Your task to perform on an android device: Check the news Image 0: 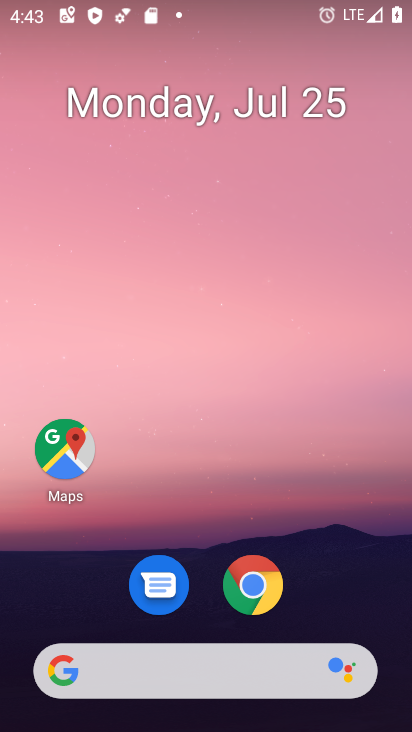
Step 0: drag from (331, 549) to (306, 79)
Your task to perform on an android device: Check the news Image 1: 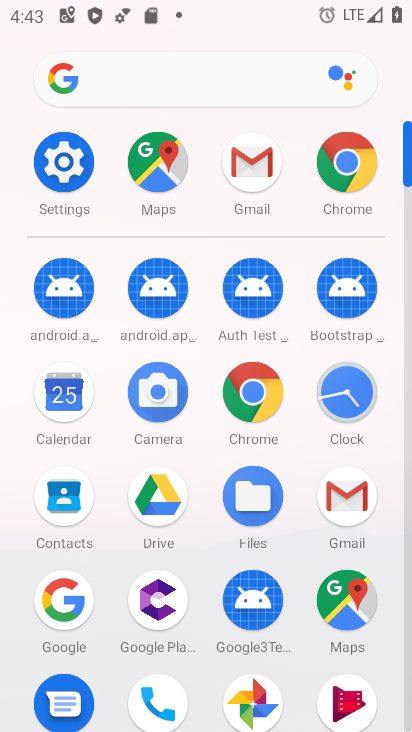
Step 1: press back button
Your task to perform on an android device: Check the news Image 2: 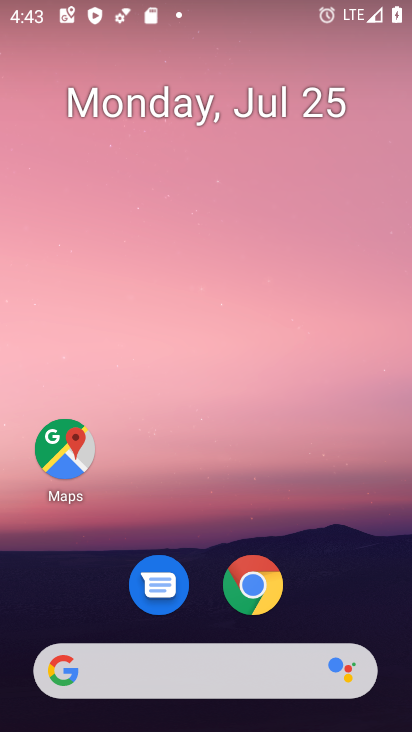
Step 2: click (257, 667)
Your task to perform on an android device: Check the news Image 3: 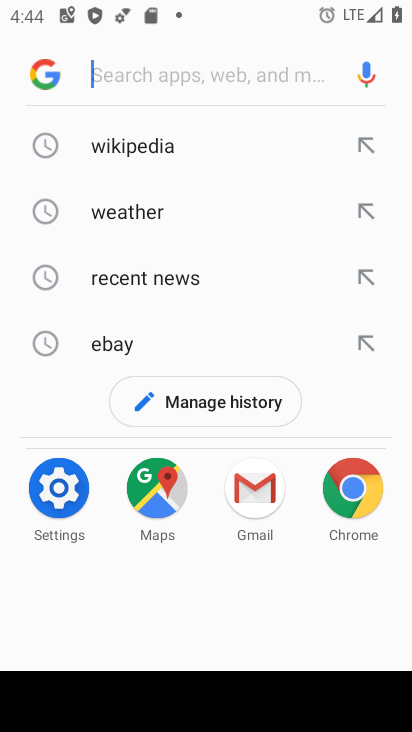
Step 3: click (145, 271)
Your task to perform on an android device: Check the news Image 4: 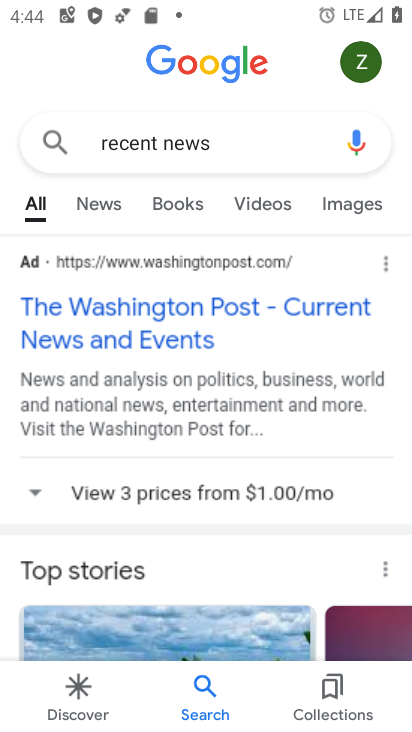
Step 4: drag from (220, 565) to (234, 193)
Your task to perform on an android device: Check the news Image 5: 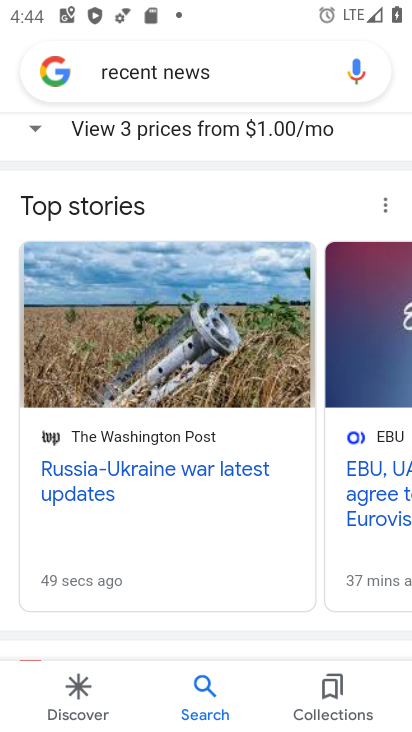
Step 5: drag from (234, 364) to (4, 376)
Your task to perform on an android device: Check the news Image 6: 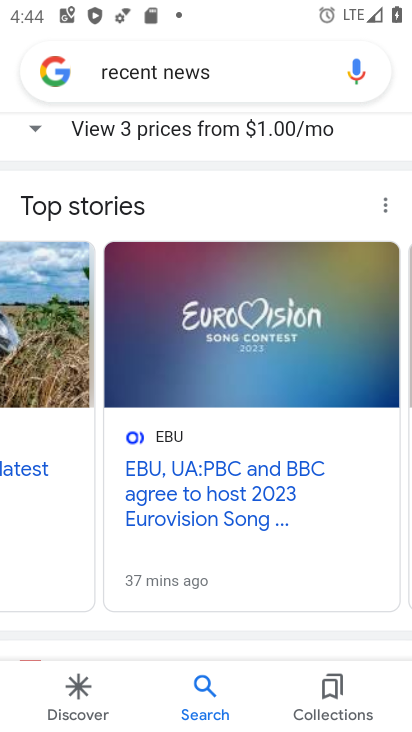
Step 6: drag from (338, 343) to (300, 335)
Your task to perform on an android device: Check the news Image 7: 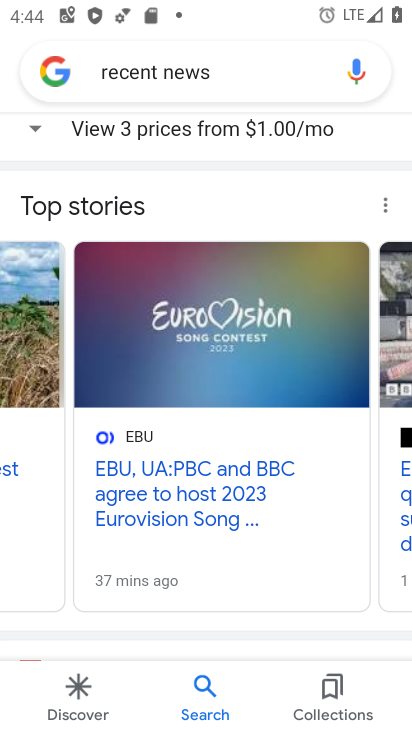
Step 7: drag from (308, 338) to (62, 327)
Your task to perform on an android device: Check the news Image 8: 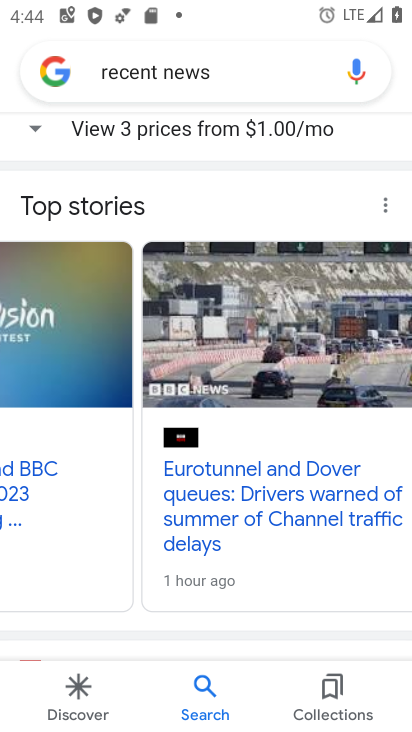
Step 8: drag from (363, 378) to (72, 378)
Your task to perform on an android device: Check the news Image 9: 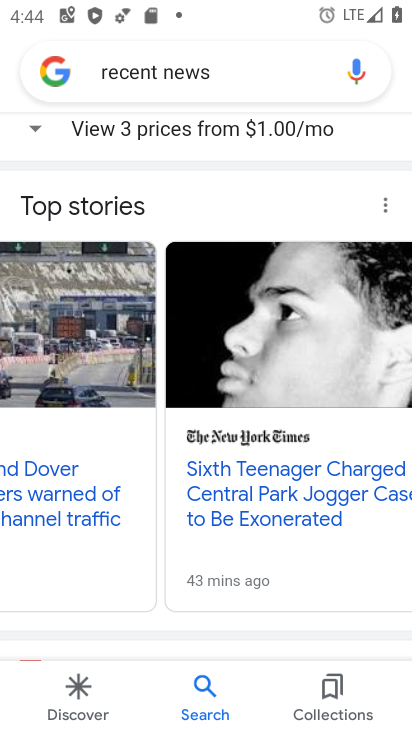
Step 9: drag from (344, 363) to (14, 313)
Your task to perform on an android device: Check the news Image 10: 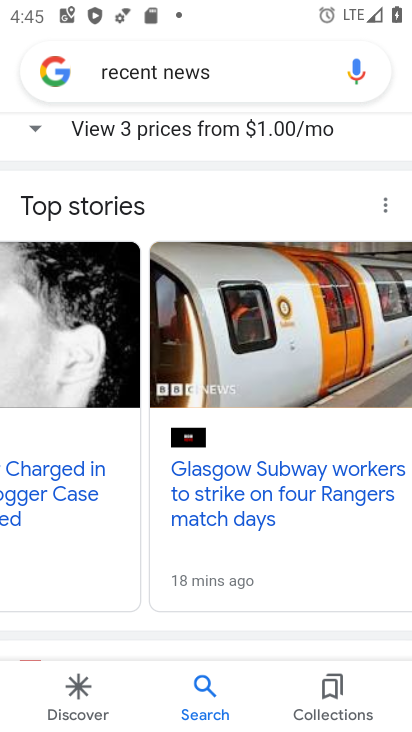
Step 10: drag from (361, 360) to (38, 325)
Your task to perform on an android device: Check the news Image 11: 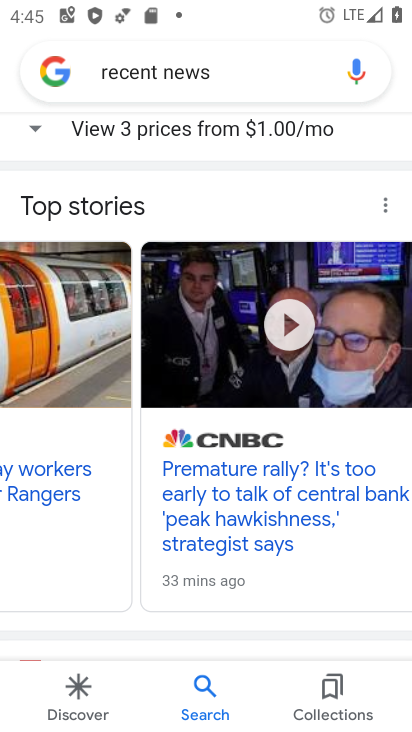
Step 11: drag from (345, 387) to (63, 364)
Your task to perform on an android device: Check the news Image 12: 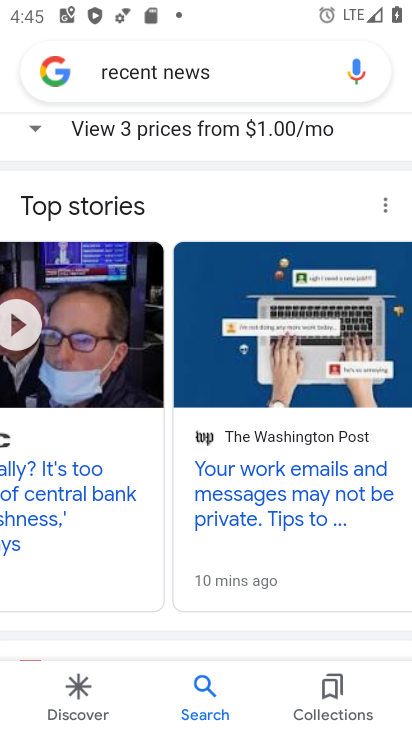
Step 12: drag from (354, 324) to (75, 293)
Your task to perform on an android device: Check the news Image 13: 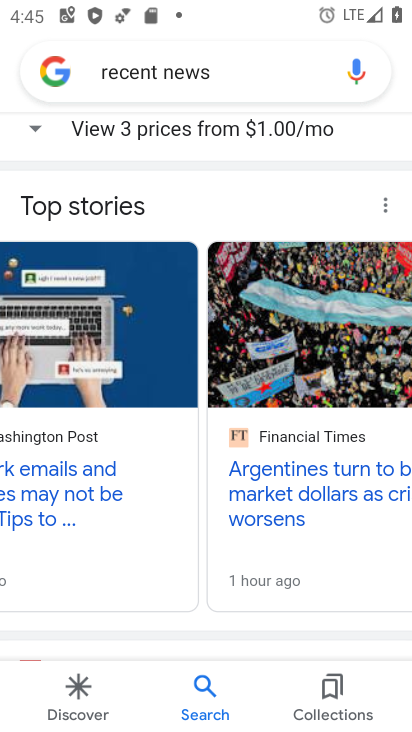
Step 13: drag from (357, 336) to (269, 324)
Your task to perform on an android device: Check the news Image 14: 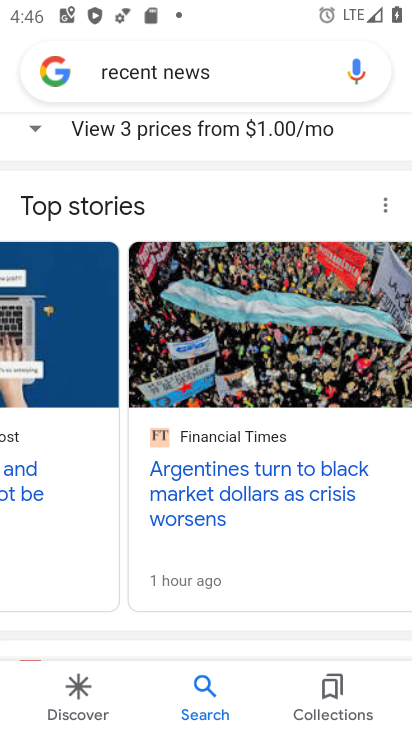
Step 14: click (328, 349)
Your task to perform on an android device: Check the news Image 15: 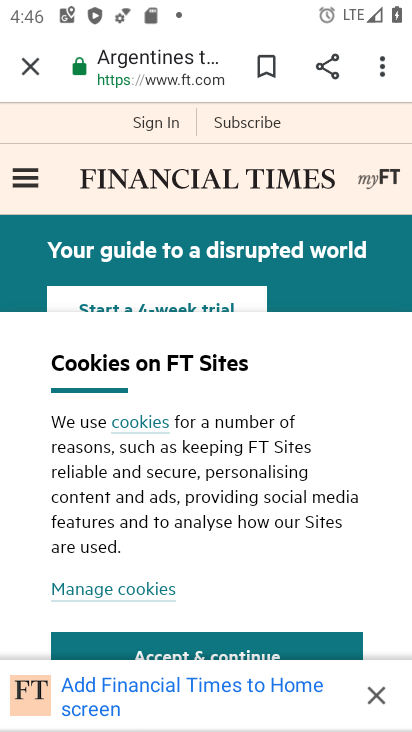
Step 15: click (380, 692)
Your task to perform on an android device: Check the news Image 16: 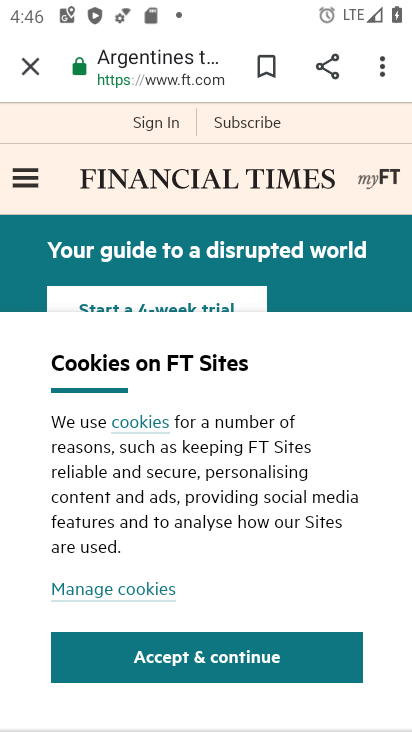
Step 16: click (336, 656)
Your task to perform on an android device: Check the news Image 17: 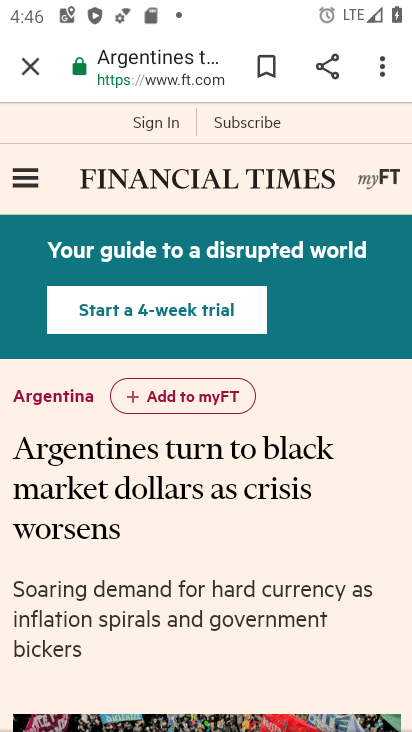
Step 17: task complete